Your task to perform on an android device: turn pop-ups on in chrome Image 0: 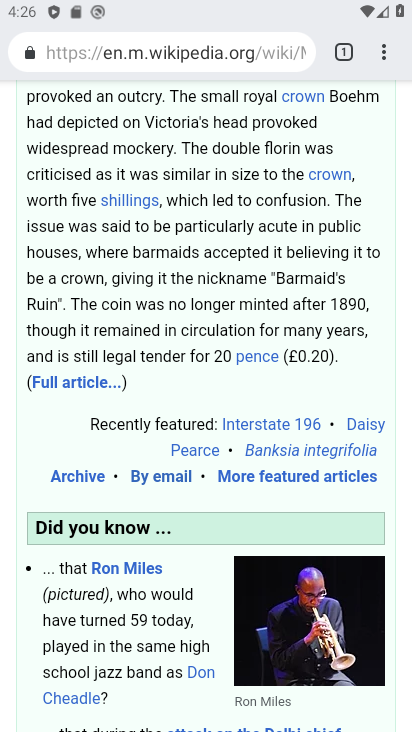
Step 0: click (379, 50)
Your task to perform on an android device: turn pop-ups on in chrome Image 1: 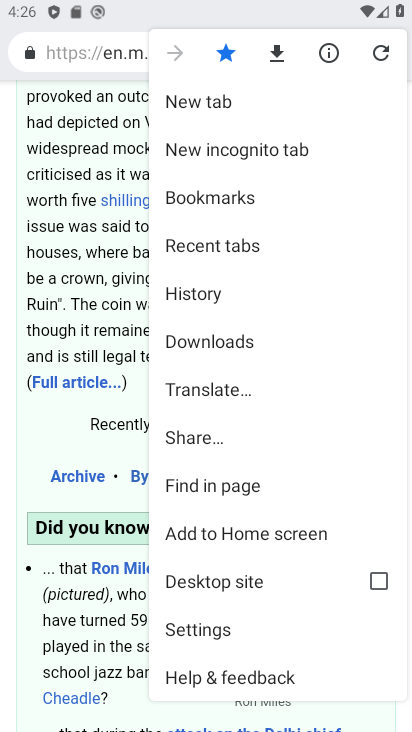
Step 1: click (227, 633)
Your task to perform on an android device: turn pop-ups on in chrome Image 2: 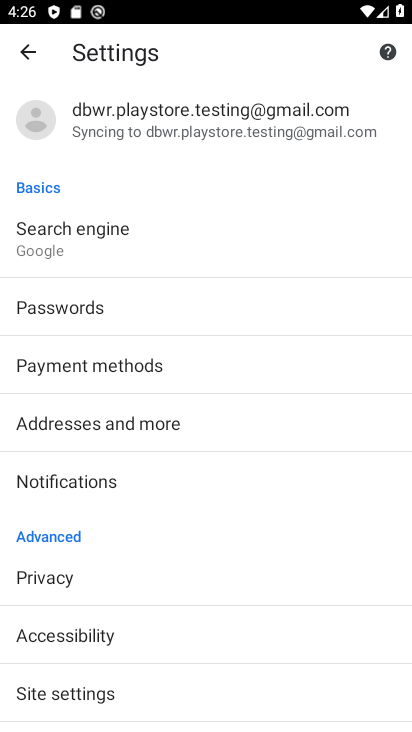
Step 2: click (63, 692)
Your task to perform on an android device: turn pop-ups on in chrome Image 3: 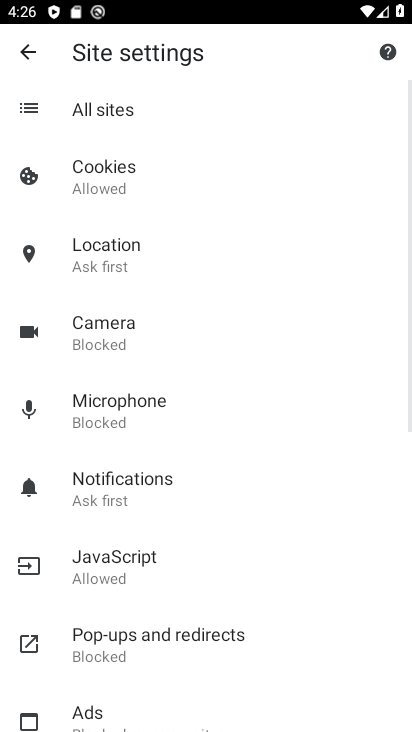
Step 3: click (196, 640)
Your task to perform on an android device: turn pop-ups on in chrome Image 4: 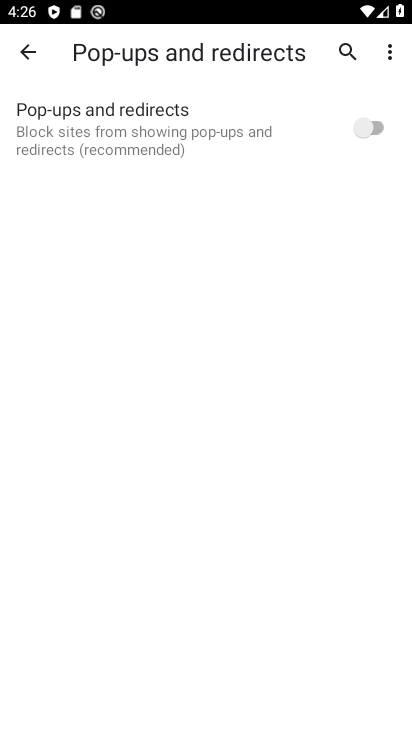
Step 4: click (380, 124)
Your task to perform on an android device: turn pop-ups on in chrome Image 5: 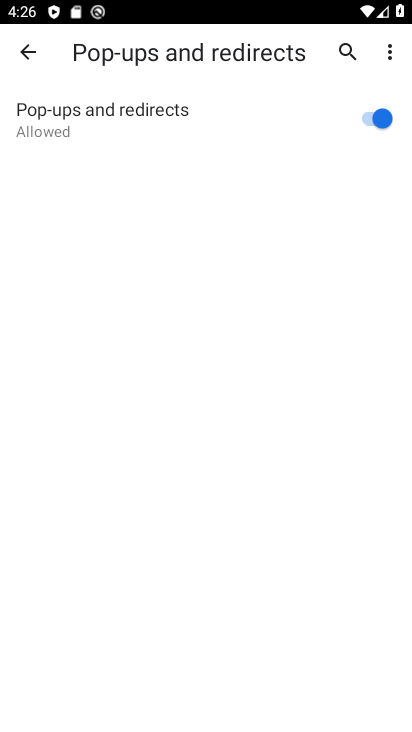
Step 5: task complete